Your task to perform on an android device: open a bookmark in the chrome app Image 0: 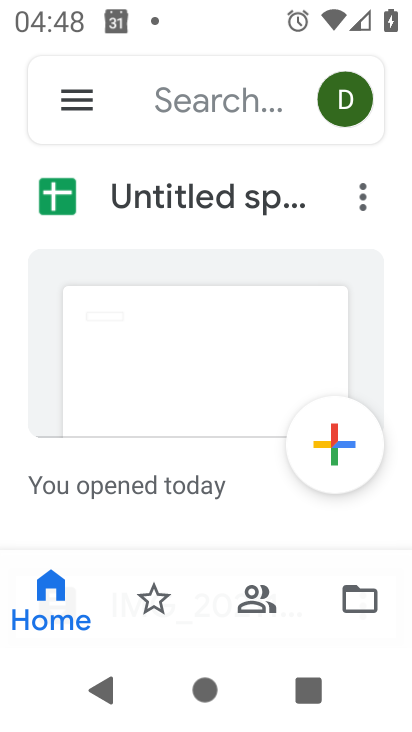
Step 0: press home button
Your task to perform on an android device: open a bookmark in the chrome app Image 1: 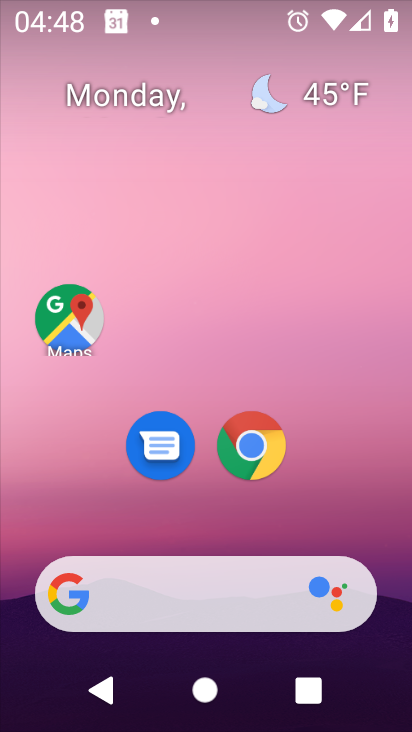
Step 1: click (251, 459)
Your task to perform on an android device: open a bookmark in the chrome app Image 2: 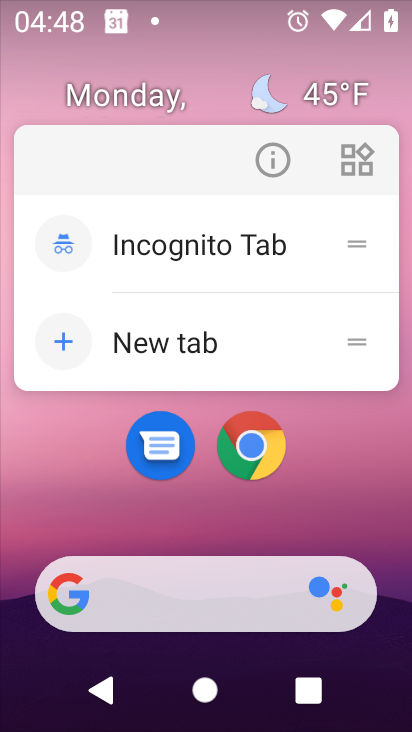
Step 2: click (251, 459)
Your task to perform on an android device: open a bookmark in the chrome app Image 3: 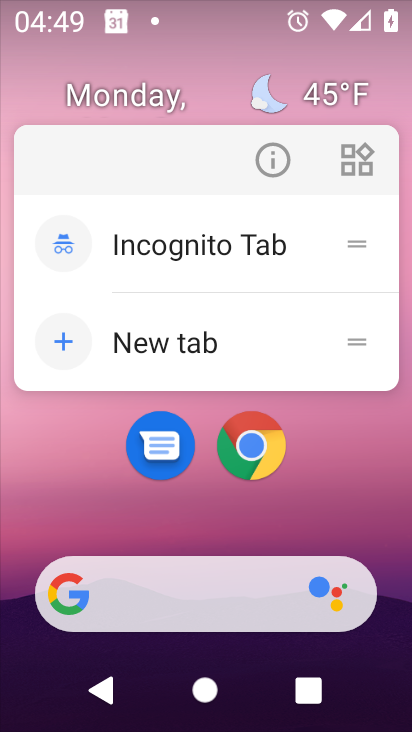
Step 3: click (251, 459)
Your task to perform on an android device: open a bookmark in the chrome app Image 4: 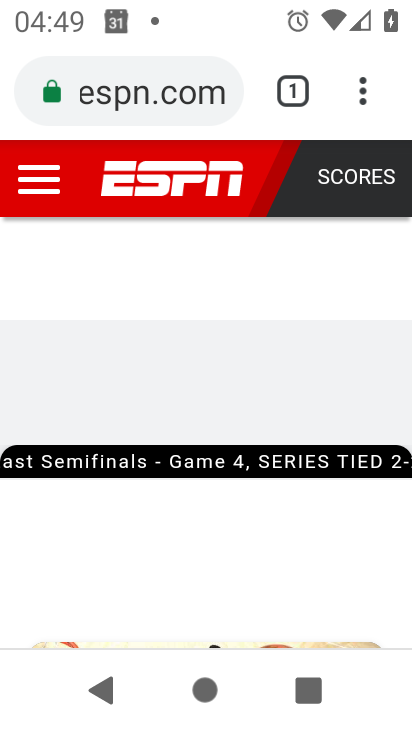
Step 4: click (357, 86)
Your task to perform on an android device: open a bookmark in the chrome app Image 5: 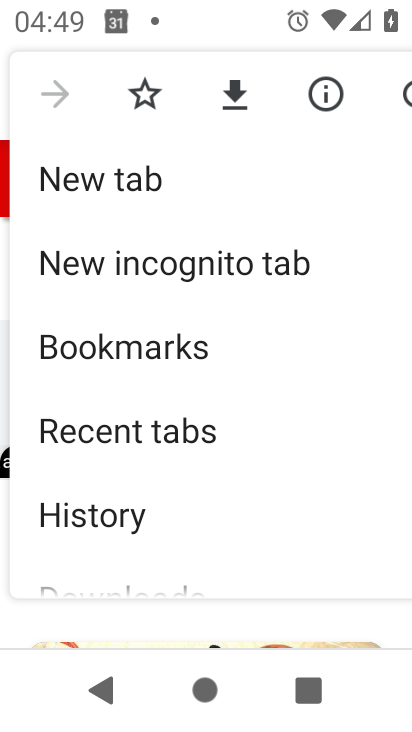
Step 5: click (119, 343)
Your task to perform on an android device: open a bookmark in the chrome app Image 6: 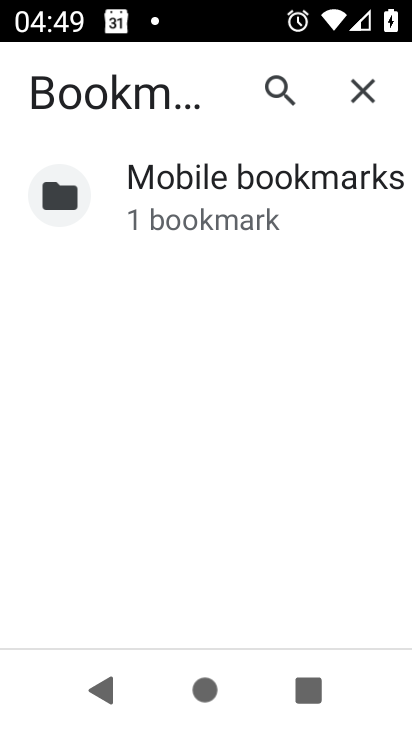
Step 6: click (165, 196)
Your task to perform on an android device: open a bookmark in the chrome app Image 7: 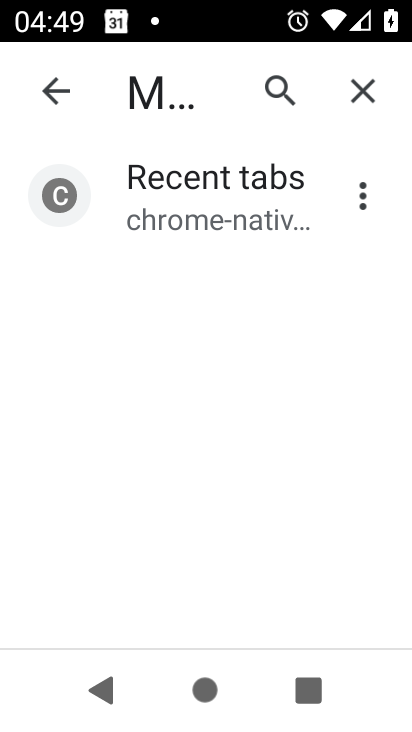
Step 7: click (182, 201)
Your task to perform on an android device: open a bookmark in the chrome app Image 8: 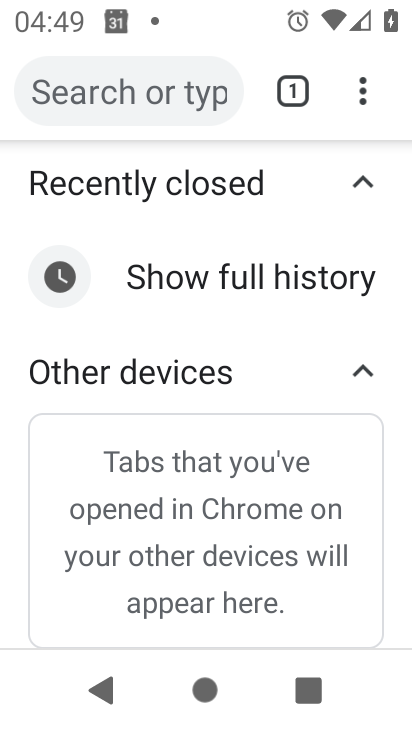
Step 8: task complete